Your task to perform on an android device: turn on the 24-hour format for clock Image 0: 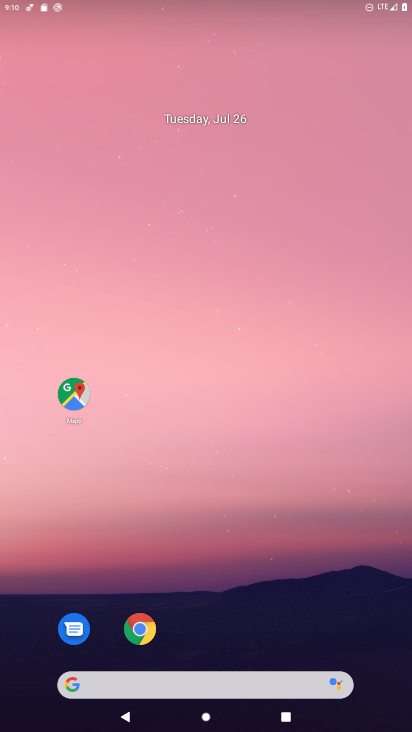
Step 0: press home button
Your task to perform on an android device: turn on the 24-hour format for clock Image 1: 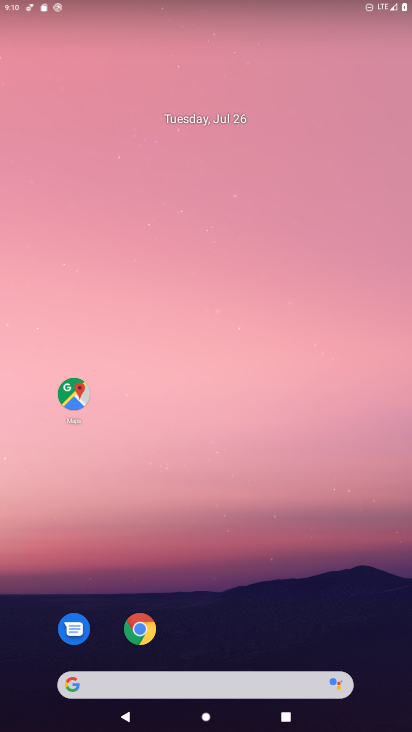
Step 1: drag from (267, 583) to (272, 129)
Your task to perform on an android device: turn on the 24-hour format for clock Image 2: 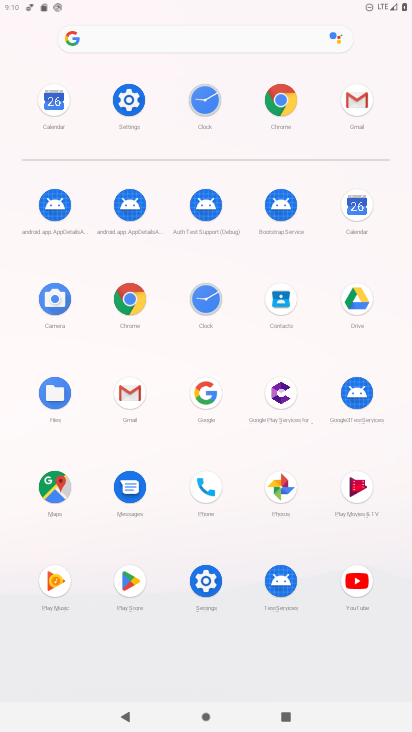
Step 2: click (217, 567)
Your task to perform on an android device: turn on the 24-hour format for clock Image 3: 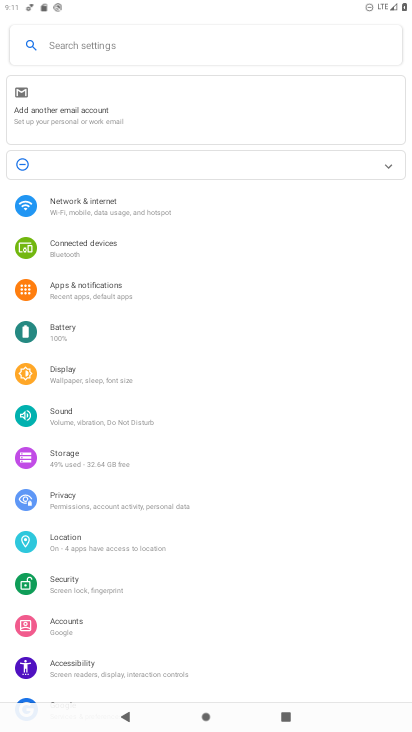
Step 3: press home button
Your task to perform on an android device: turn on the 24-hour format for clock Image 4: 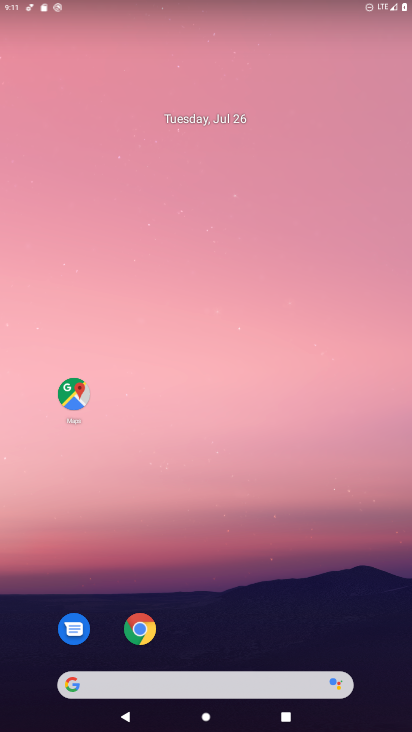
Step 4: drag from (307, 631) to (218, 184)
Your task to perform on an android device: turn on the 24-hour format for clock Image 5: 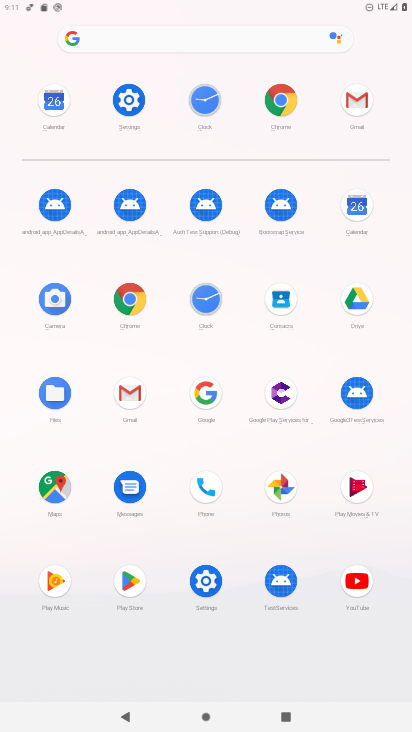
Step 5: click (211, 303)
Your task to perform on an android device: turn on the 24-hour format for clock Image 6: 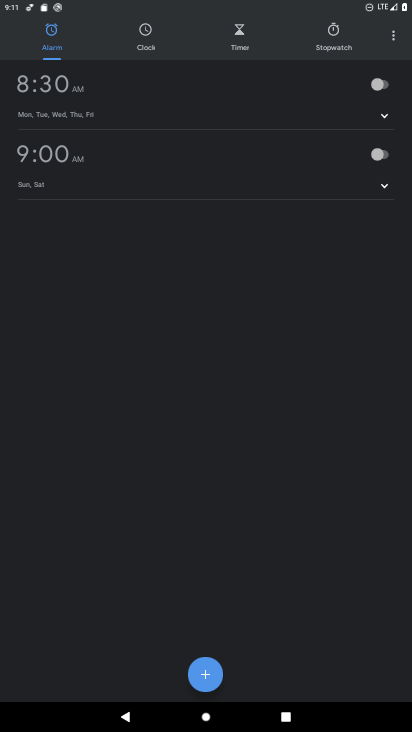
Step 6: click (385, 29)
Your task to perform on an android device: turn on the 24-hour format for clock Image 7: 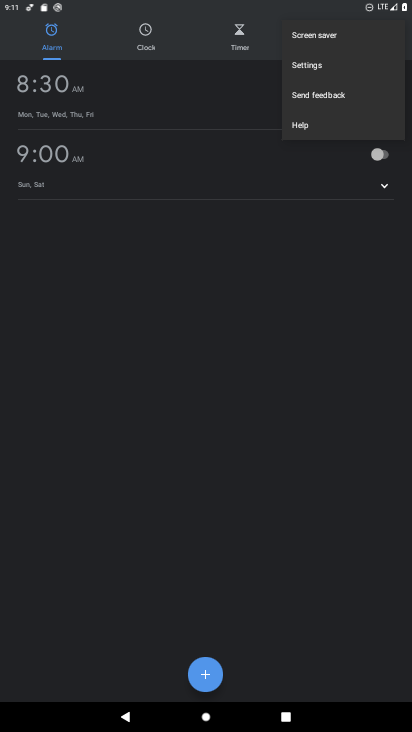
Step 7: click (330, 69)
Your task to perform on an android device: turn on the 24-hour format for clock Image 8: 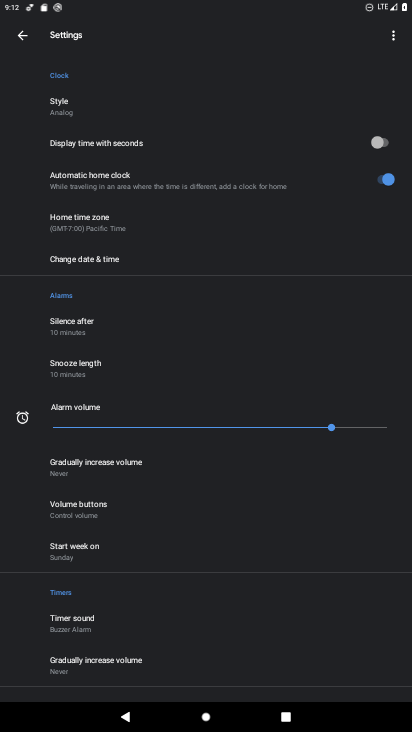
Step 8: click (74, 269)
Your task to perform on an android device: turn on the 24-hour format for clock Image 9: 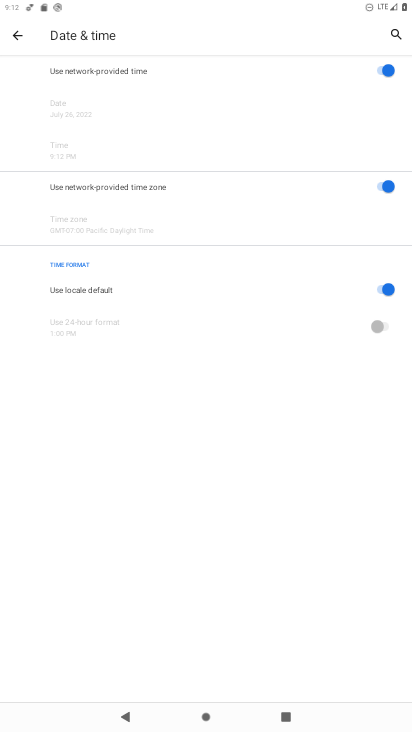
Step 9: click (118, 287)
Your task to perform on an android device: turn on the 24-hour format for clock Image 10: 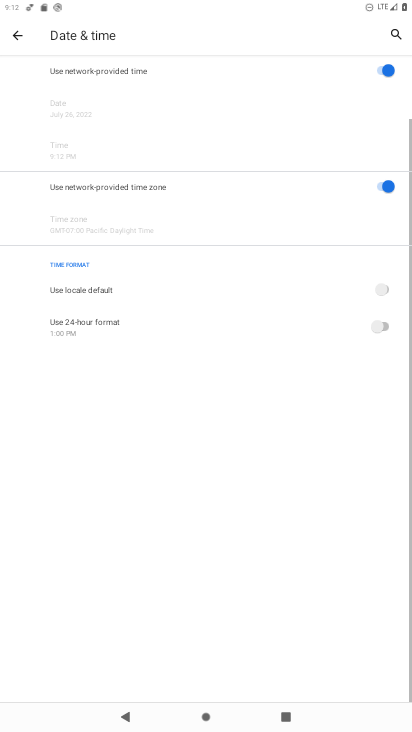
Step 10: click (119, 334)
Your task to perform on an android device: turn on the 24-hour format for clock Image 11: 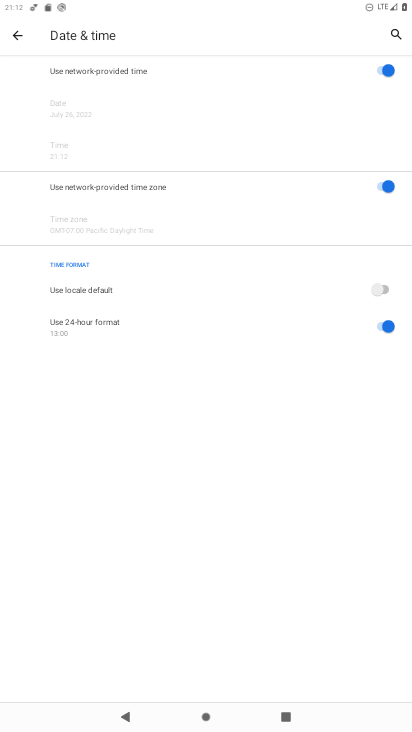
Step 11: task complete